Your task to perform on an android device: Open notification settings Image 0: 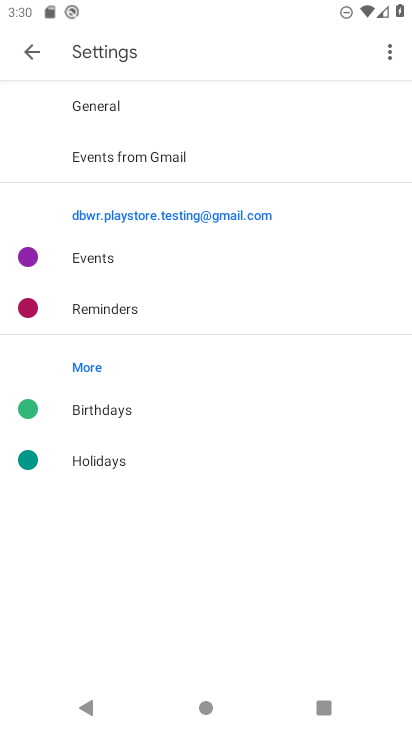
Step 0: press home button
Your task to perform on an android device: Open notification settings Image 1: 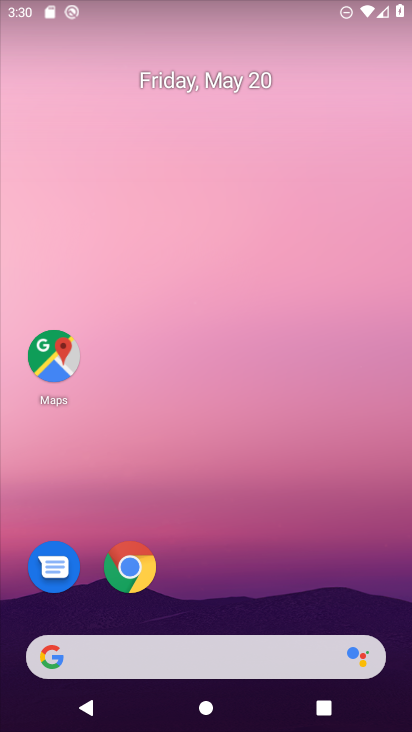
Step 1: drag from (235, 722) to (227, 108)
Your task to perform on an android device: Open notification settings Image 2: 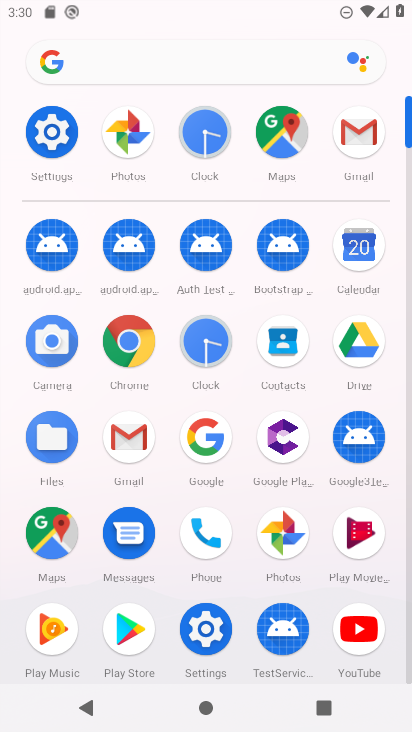
Step 2: click (53, 140)
Your task to perform on an android device: Open notification settings Image 3: 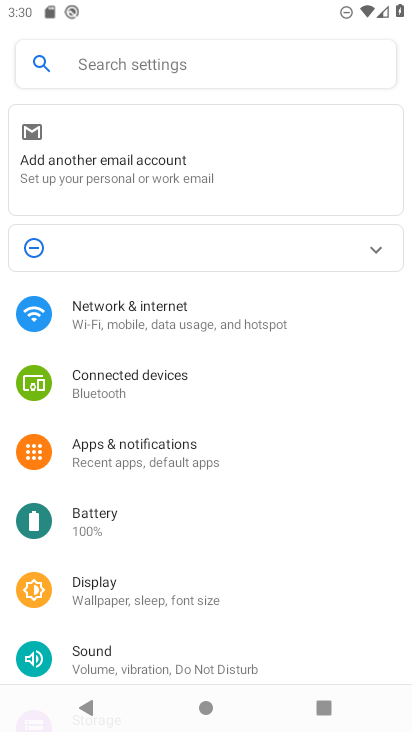
Step 3: click (124, 452)
Your task to perform on an android device: Open notification settings Image 4: 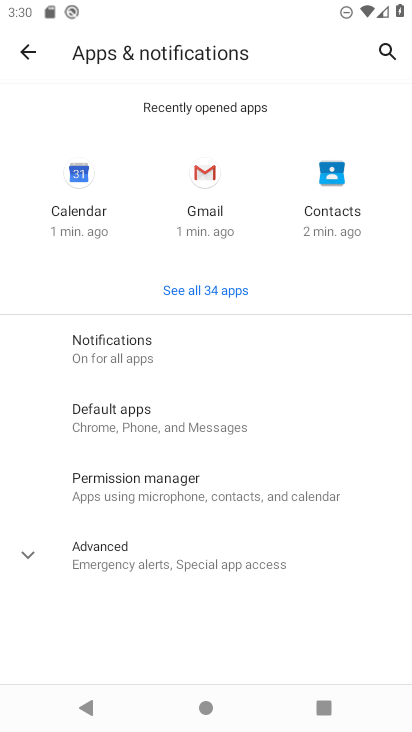
Step 4: click (119, 356)
Your task to perform on an android device: Open notification settings Image 5: 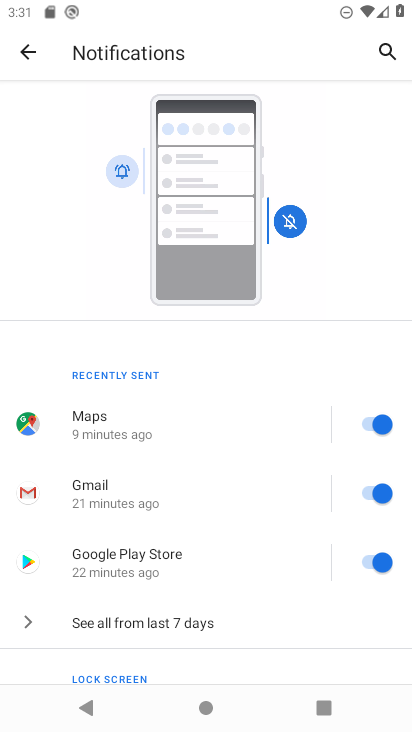
Step 5: task complete